Your task to perform on an android device: turn on notifications settings in the gmail app Image 0: 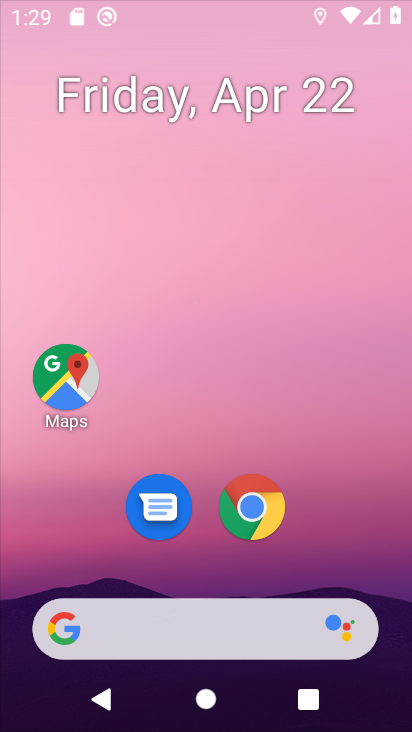
Step 0: drag from (147, 626) to (309, 59)
Your task to perform on an android device: turn on notifications settings in the gmail app Image 1: 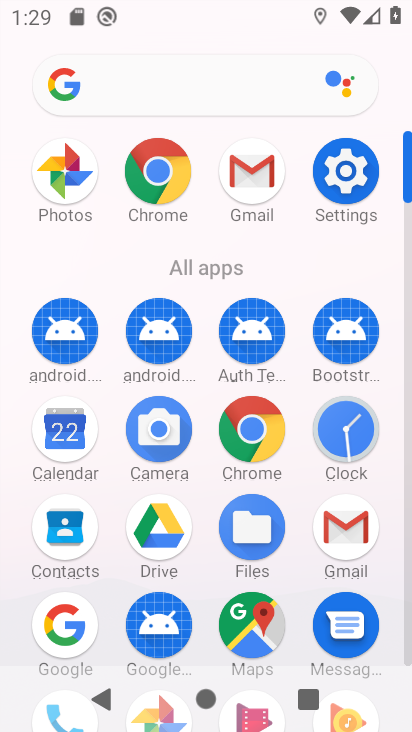
Step 1: click (247, 178)
Your task to perform on an android device: turn on notifications settings in the gmail app Image 2: 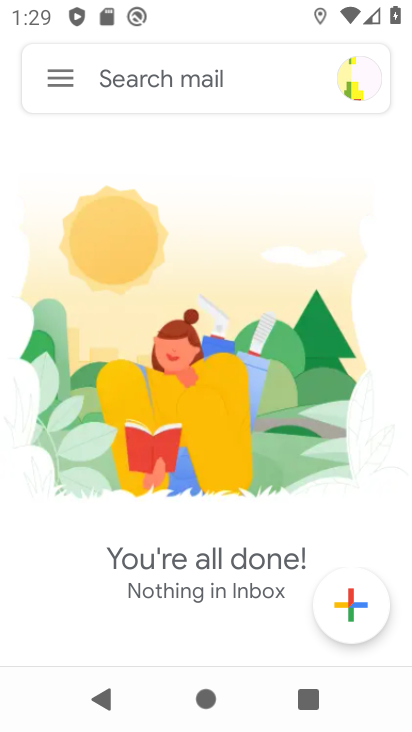
Step 2: click (60, 77)
Your task to perform on an android device: turn on notifications settings in the gmail app Image 3: 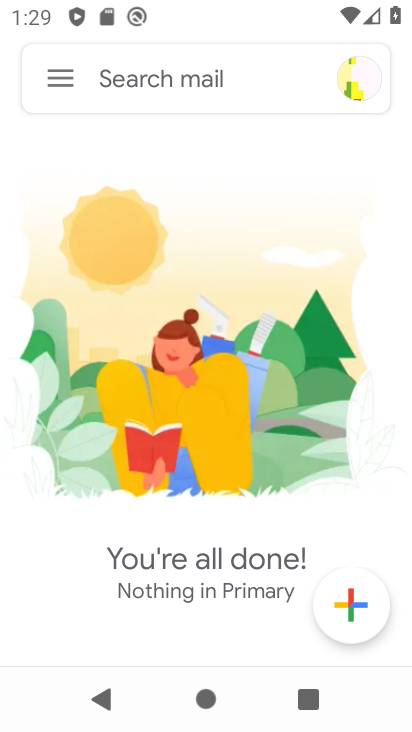
Step 3: click (67, 82)
Your task to perform on an android device: turn on notifications settings in the gmail app Image 4: 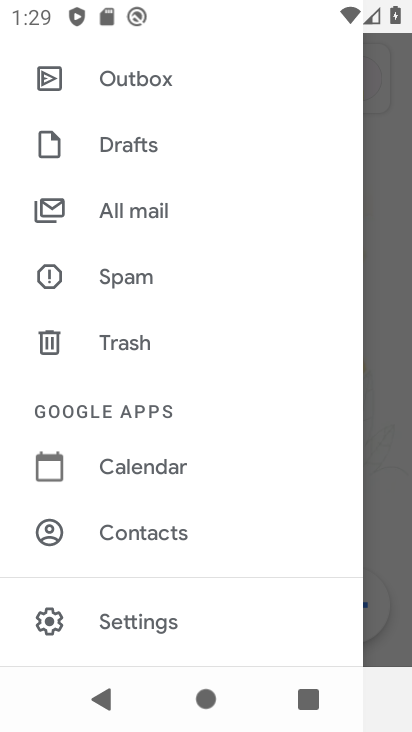
Step 4: click (146, 618)
Your task to perform on an android device: turn on notifications settings in the gmail app Image 5: 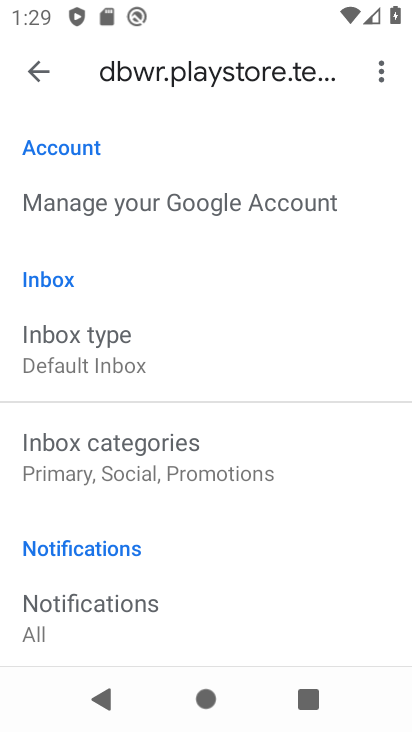
Step 5: drag from (158, 549) to (334, 175)
Your task to perform on an android device: turn on notifications settings in the gmail app Image 6: 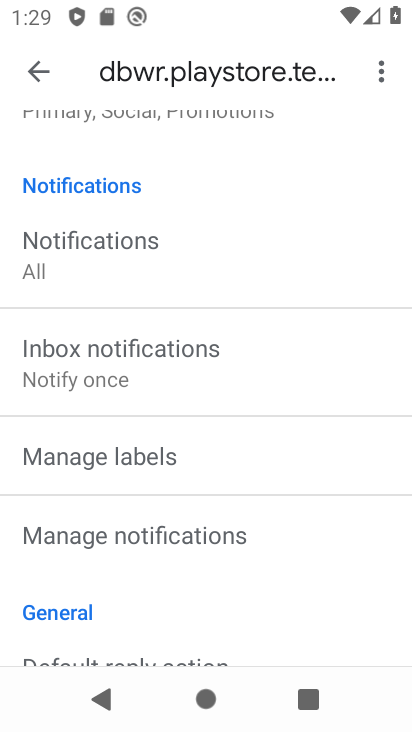
Step 6: click (66, 251)
Your task to perform on an android device: turn on notifications settings in the gmail app Image 7: 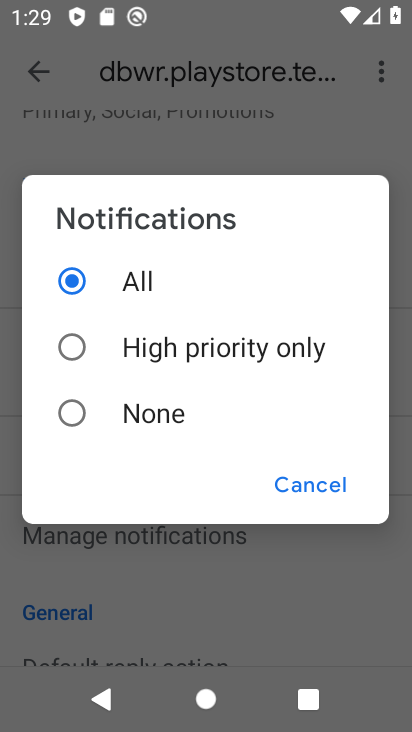
Step 7: task complete